Your task to perform on an android device: delete browsing data in the chrome app Image 0: 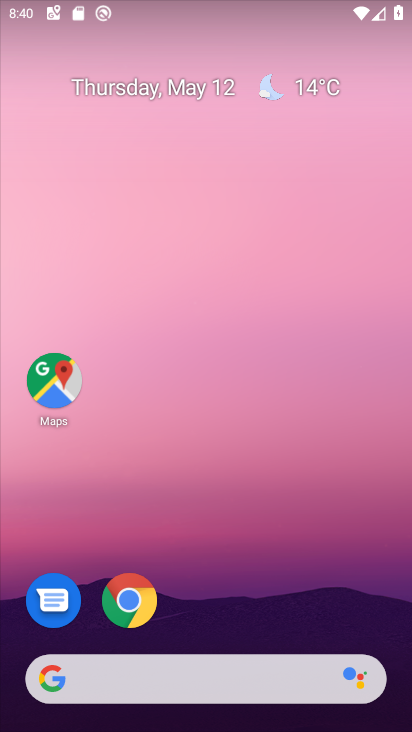
Step 0: drag from (395, 628) to (208, 32)
Your task to perform on an android device: delete browsing data in the chrome app Image 1: 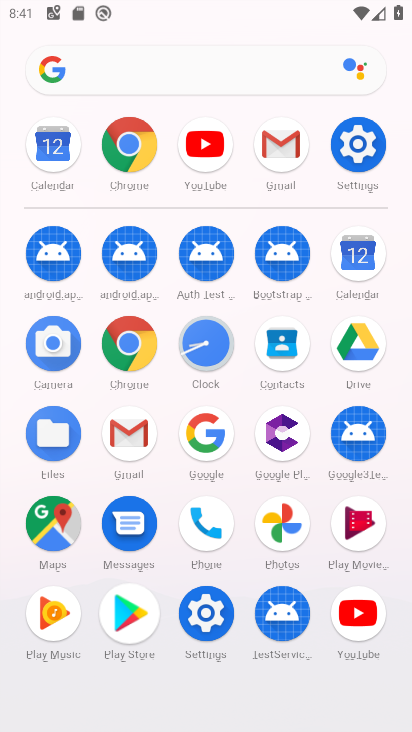
Step 1: click (121, 138)
Your task to perform on an android device: delete browsing data in the chrome app Image 2: 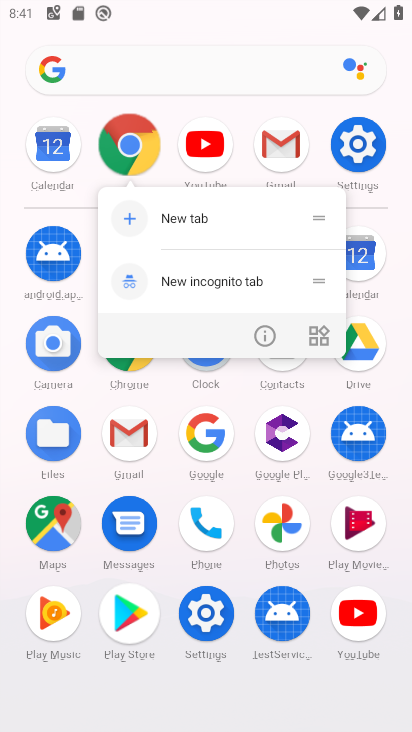
Step 2: click (121, 142)
Your task to perform on an android device: delete browsing data in the chrome app Image 3: 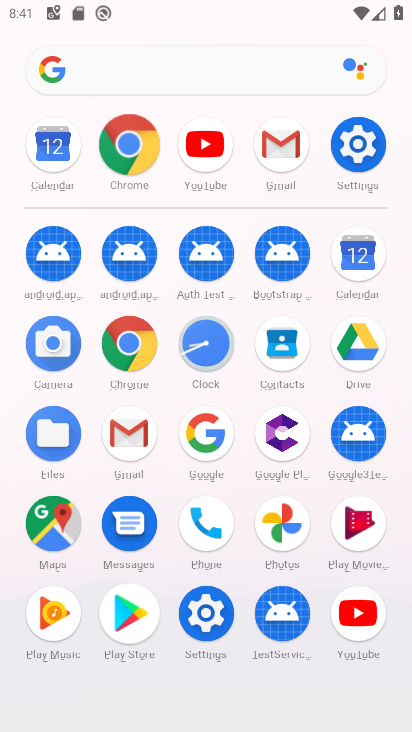
Step 3: click (121, 142)
Your task to perform on an android device: delete browsing data in the chrome app Image 4: 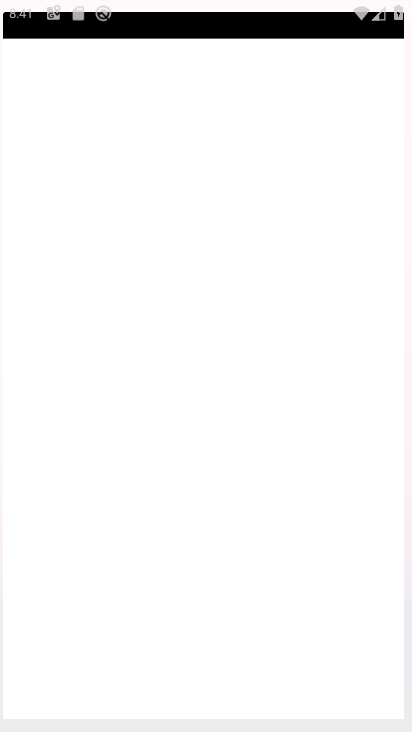
Step 4: click (121, 142)
Your task to perform on an android device: delete browsing data in the chrome app Image 5: 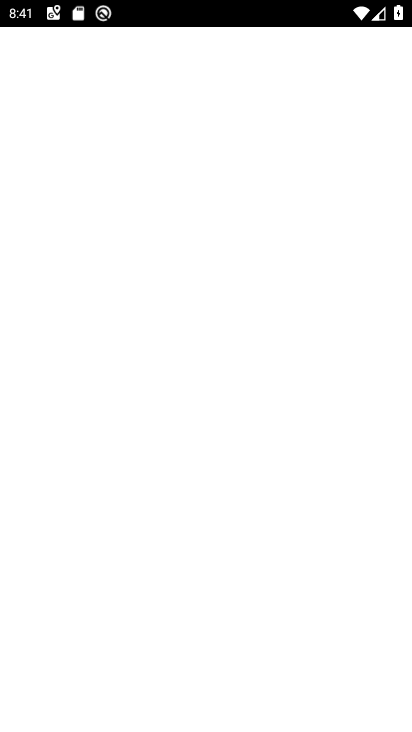
Step 5: click (121, 142)
Your task to perform on an android device: delete browsing data in the chrome app Image 6: 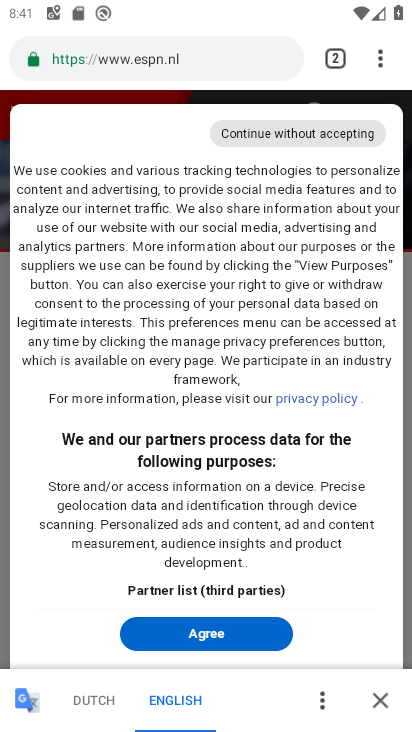
Step 6: drag from (378, 54) to (53, 73)
Your task to perform on an android device: delete browsing data in the chrome app Image 7: 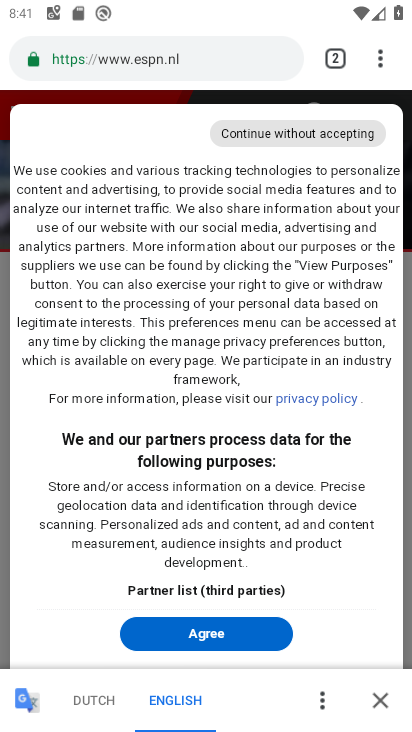
Step 7: click (379, 61)
Your task to perform on an android device: delete browsing data in the chrome app Image 8: 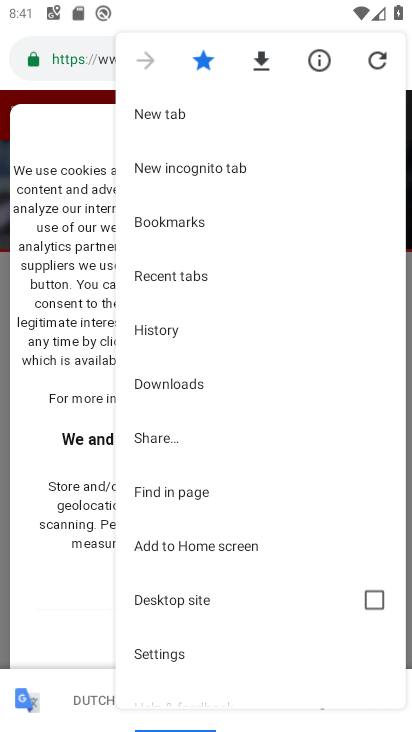
Step 8: drag from (379, 61) to (155, 328)
Your task to perform on an android device: delete browsing data in the chrome app Image 9: 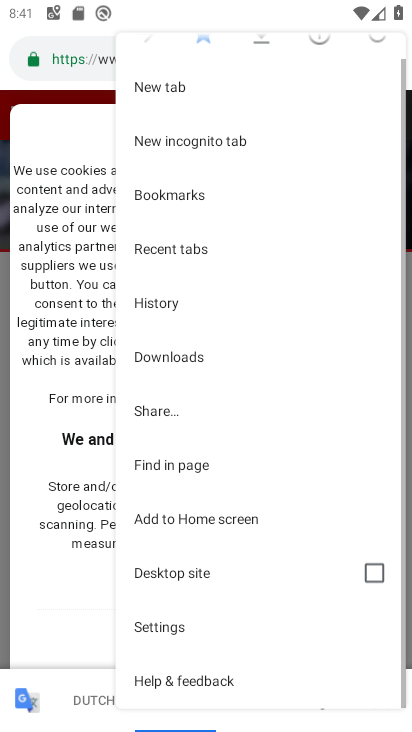
Step 9: click (155, 326)
Your task to perform on an android device: delete browsing data in the chrome app Image 10: 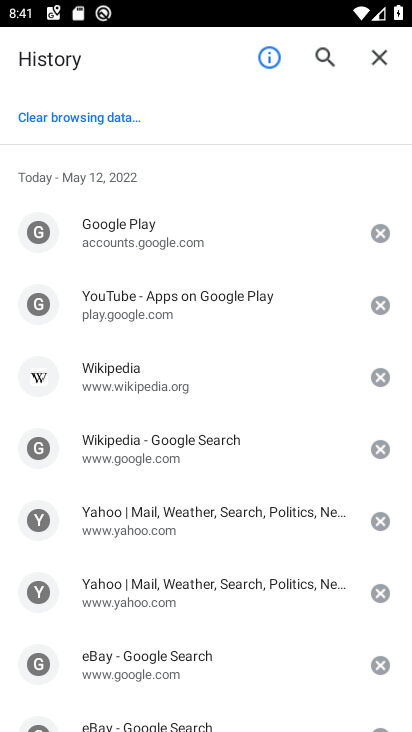
Step 10: click (155, 326)
Your task to perform on an android device: delete browsing data in the chrome app Image 11: 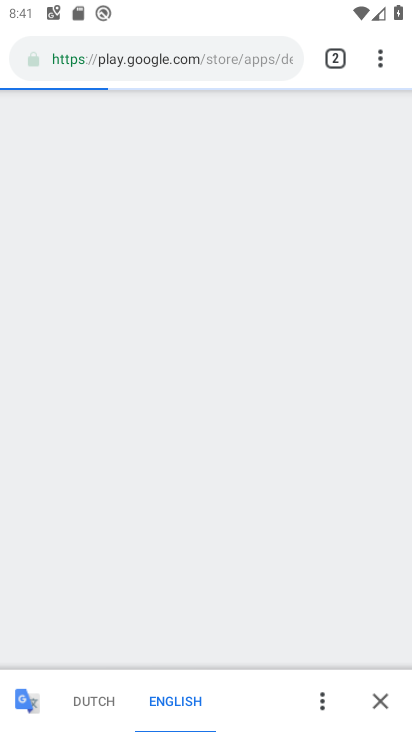
Step 11: click (155, 326)
Your task to perform on an android device: delete browsing data in the chrome app Image 12: 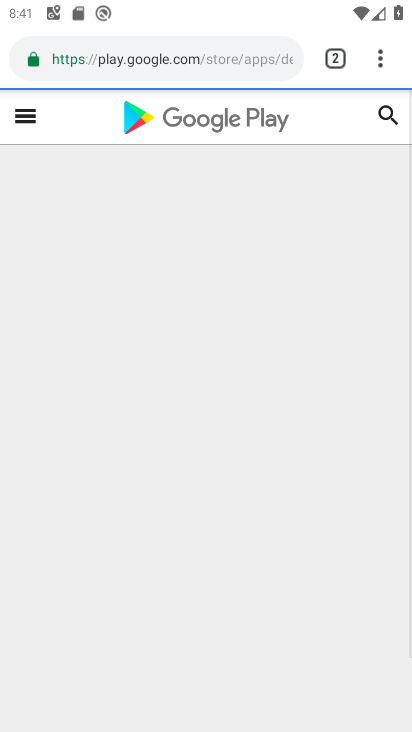
Step 12: click (159, 322)
Your task to perform on an android device: delete browsing data in the chrome app Image 13: 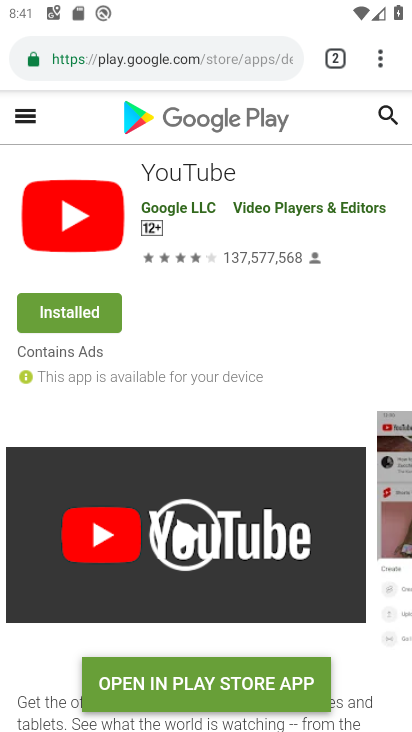
Step 13: click (72, 316)
Your task to perform on an android device: delete browsing data in the chrome app Image 14: 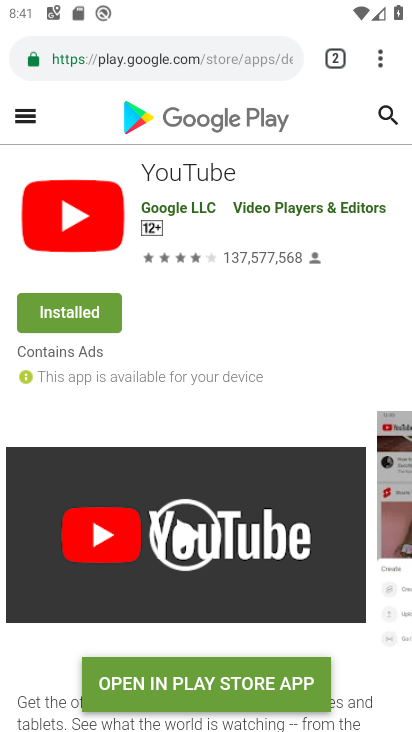
Step 14: click (75, 302)
Your task to perform on an android device: delete browsing data in the chrome app Image 15: 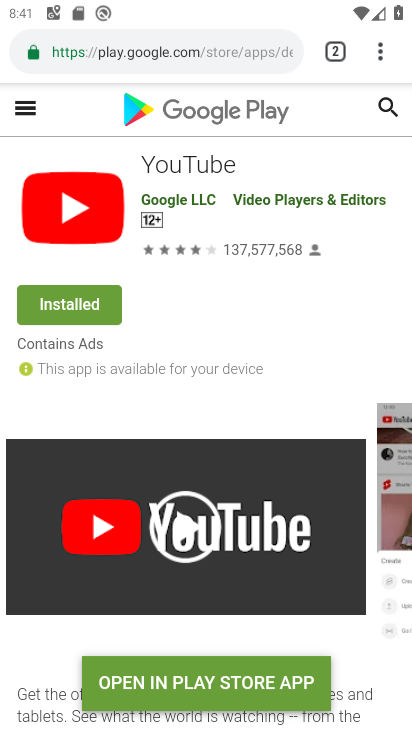
Step 15: click (75, 302)
Your task to perform on an android device: delete browsing data in the chrome app Image 16: 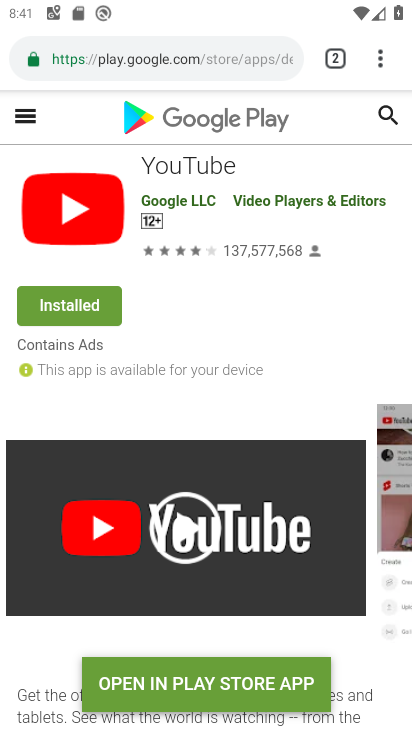
Step 16: click (75, 302)
Your task to perform on an android device: delete browsing data in the chrome app Image 17: 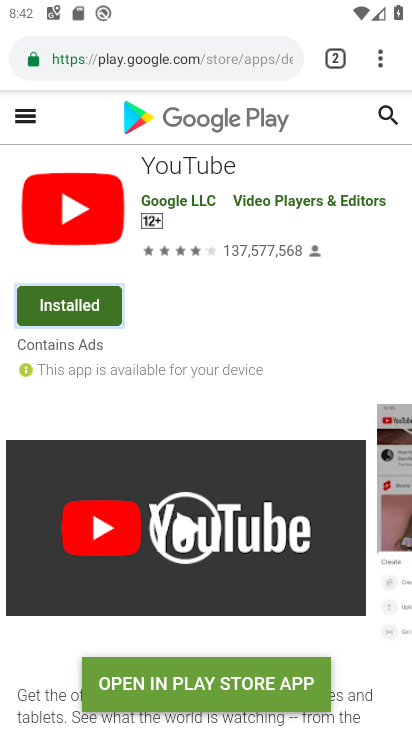
Step 17: click (75, 302)
Your task to perform on an android device: delete browsing data in the chrome app Image 18: 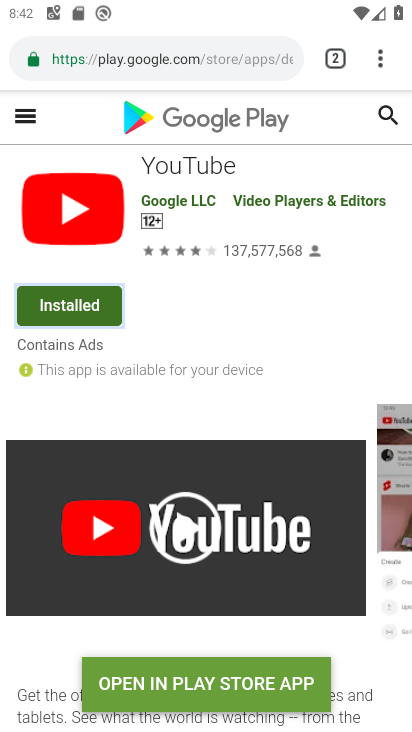
Step 18: click (75, 302)
Your task to perform on an android device: delete browsing data in the chrome app Image 19: 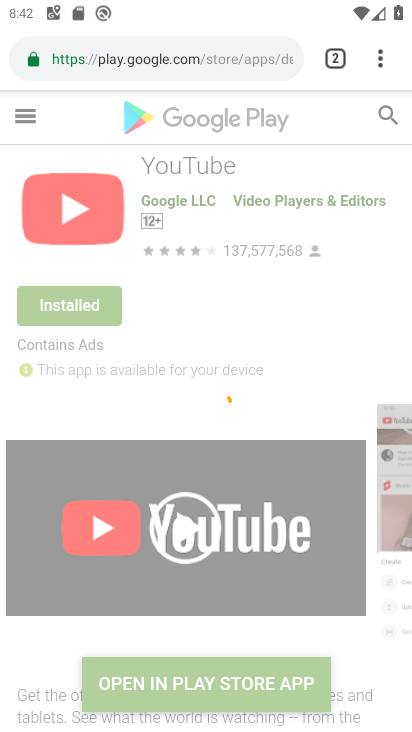
Step 19: click (71, 304)
Your task to perform on an android device: delete browsing data in the chrome app Image 20: 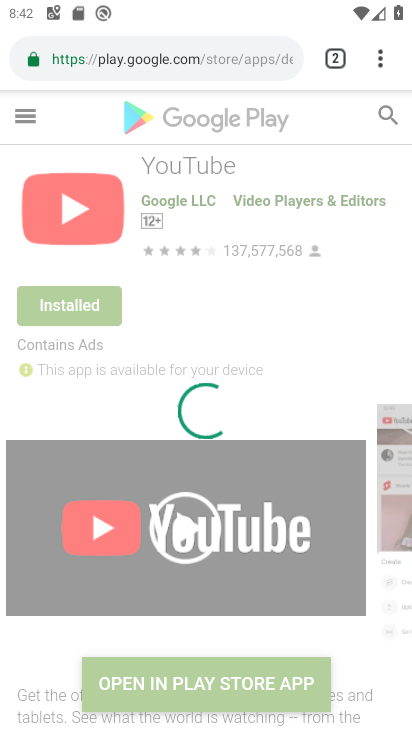
Step 20: click (107, 298)
Your task to perform on an android device: delete browsing data in the chrome app Image 21: 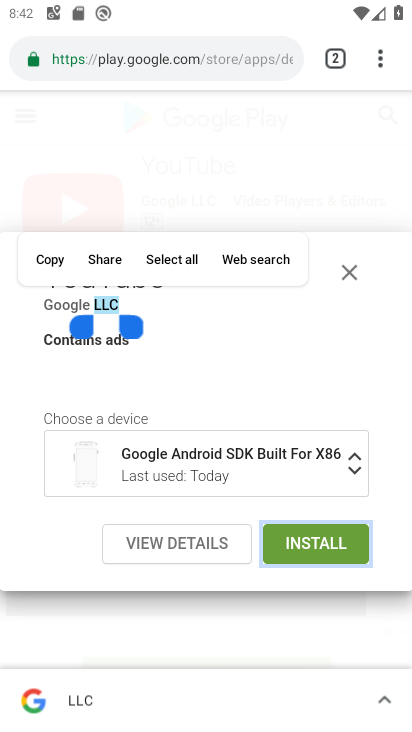
Step 21: click (351, 270)
Your task to perform on an android device: delete browsing data in the chrome app Image 22: 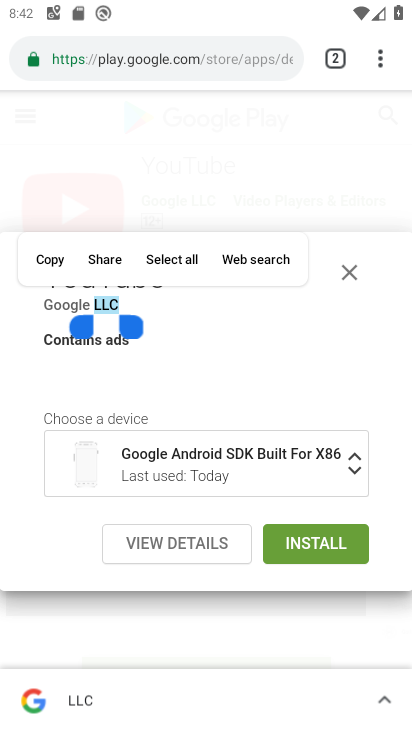
Step 22: click (347, 271)
Your task to perform on an android device: delete browsing data in the chrome app Image 23: 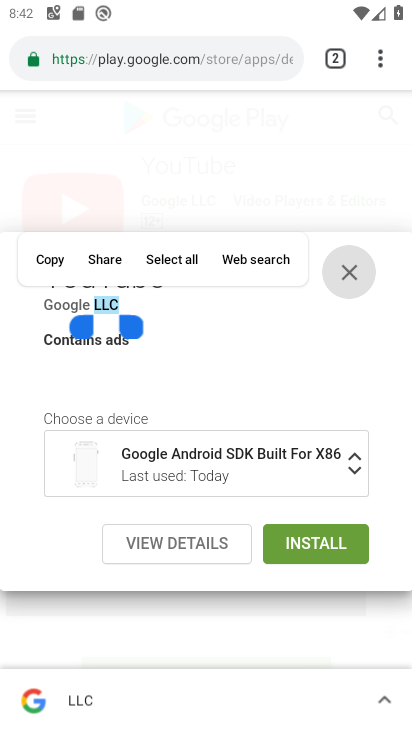
Step 23: click (347, 272)
Your task to perform on an android device: delete browsing data in the chrome app Image 24: 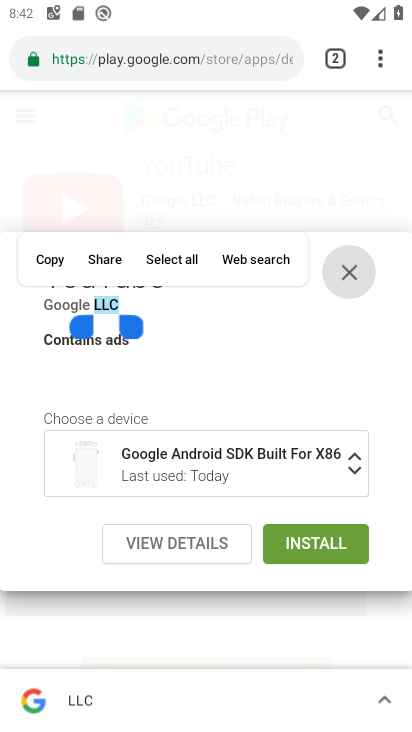
Step 24: click (348, 271)
Your task to perform on an android device: delete browsing data in the chrome app Image 25: 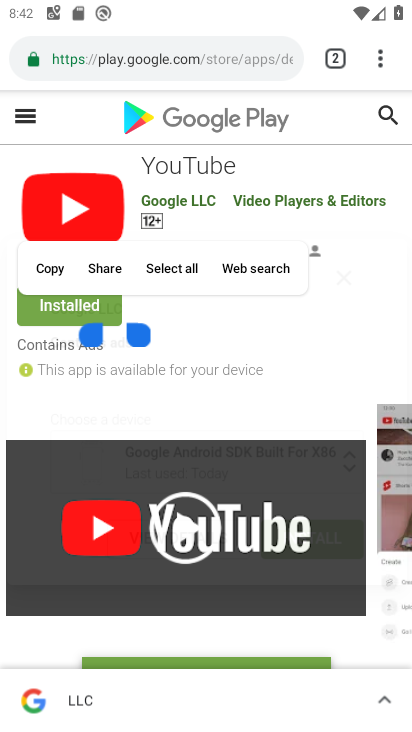
Step 25: click (348, 271)
Your task to perform on an android device: delete browsing data in the chrome app Image 26: 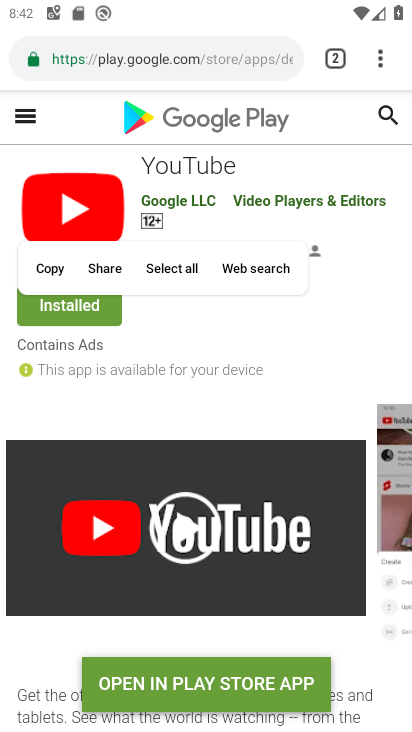
Step 26: click (348, 271)
Your task to perform on an android device: delete browsing data in the chrome app Image 27: 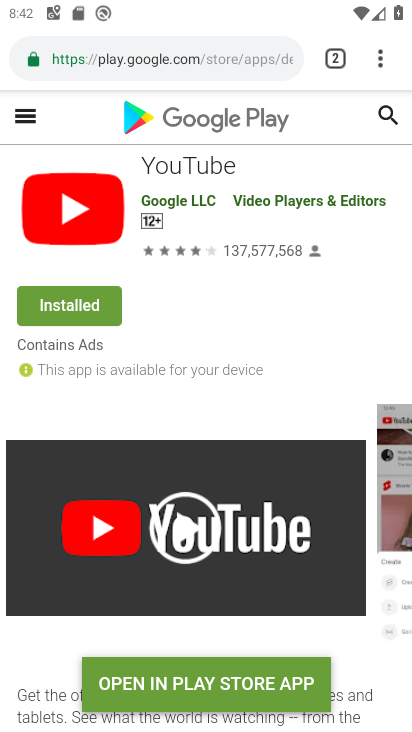
Step 27: task complete